Your task to perform on an android device: turn on data saver in the chrome app Image 0: 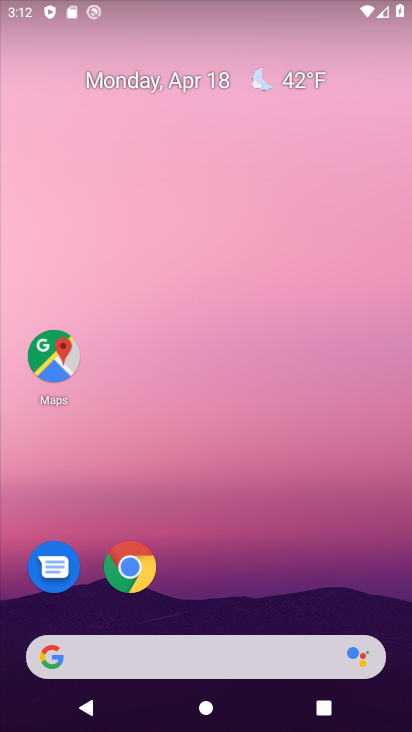
Step 0: drag from (179, 470) to (407, 384)
Your task to perform on an android device: turn on data saver in the chrome app Image 1: 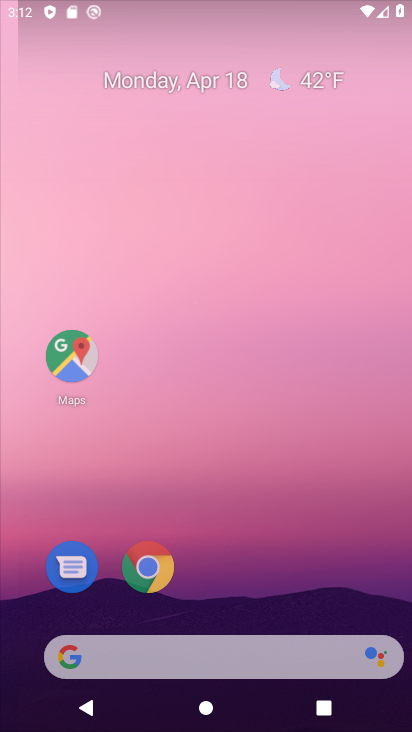
Step 1: click (305, 92)
Your task to perform on an android device: turn on data saver in the chrome app Image 2: 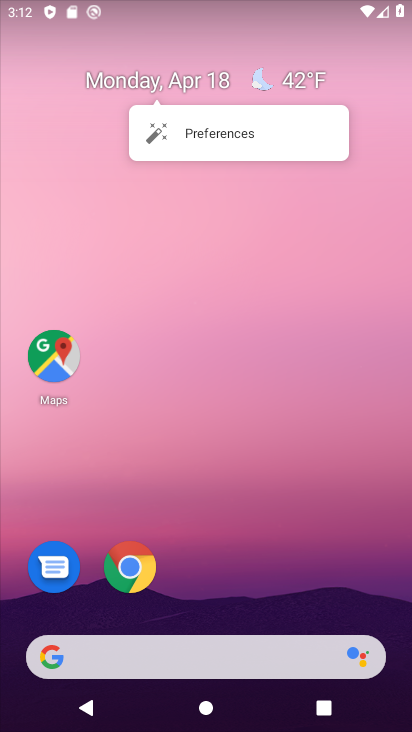
Step 2: click (311, 79)
Your task to perform on an android device: turn on data saver in the chrome app Image 3: 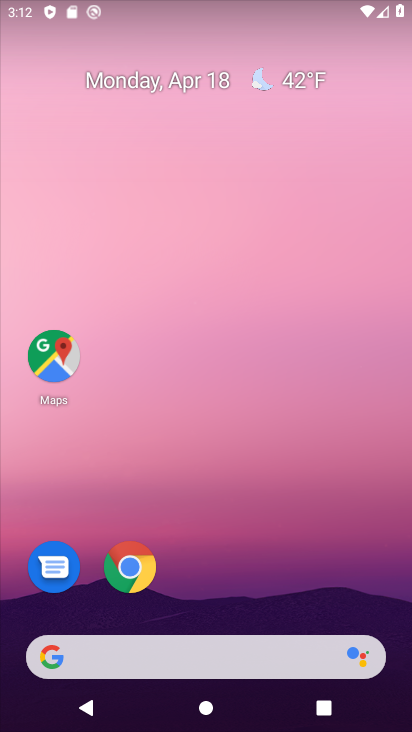
Step 3: click (294, 81)
Your task to perform on an android device: turn on data saver in the chrome app Image 4: 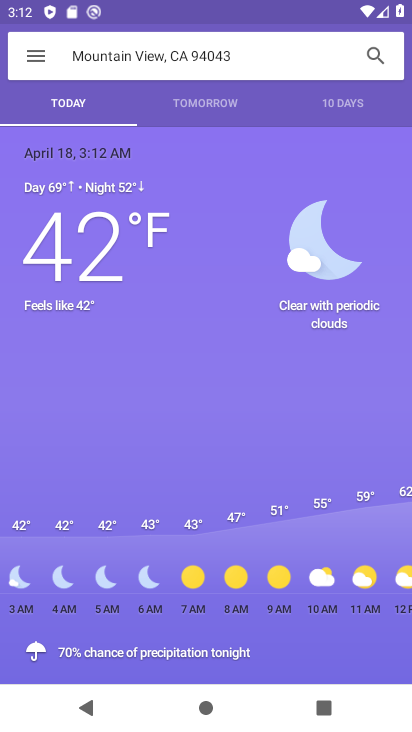
Step 4: press back button
Your task to perform on an android device: turn on data saver in the chrome app Image 5: 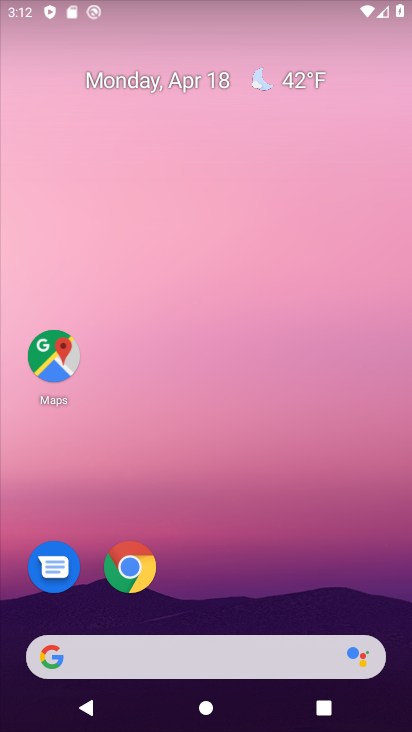
Step 5: drag from (217, 627) to (336, 70)
Your task to perform on an android device: turn on data saver in the chrome app Image 6: 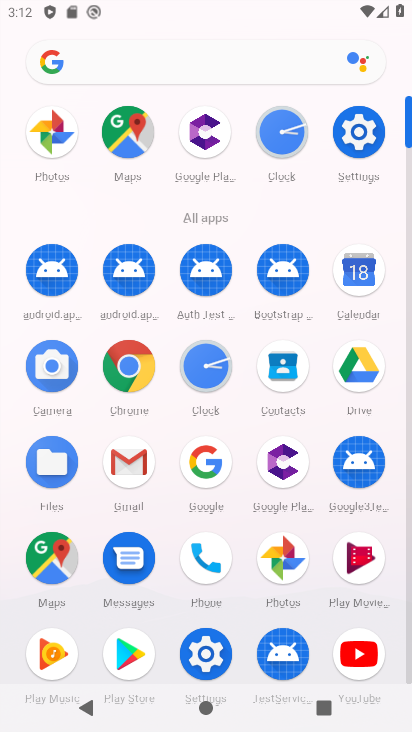
Step 6: drag from (208, 612) to (288, 283)
Your task to perform on an android device: turn on data saver in the chrome app Image 7: 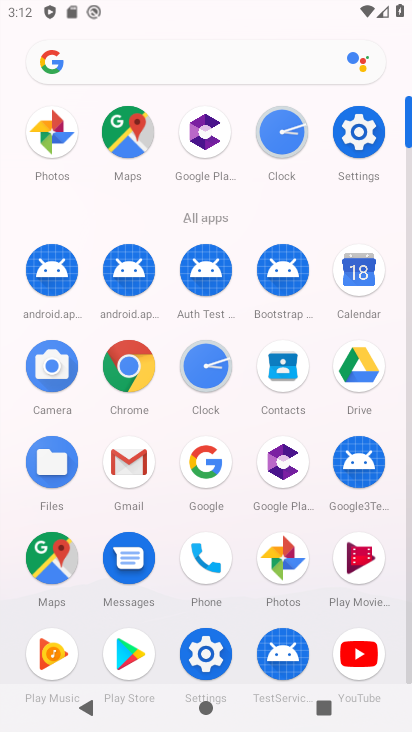
Step 7: click (199, 665)
Your task to perform on an android device: turn on data saver in the chrome app Image 8: 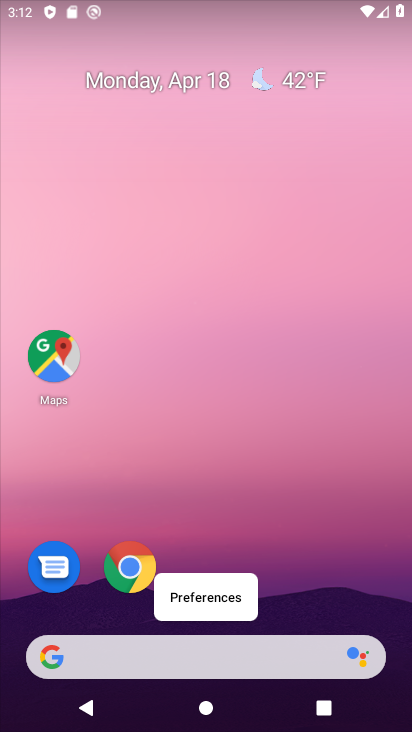
Step 8: click (134, 574)
Your task to perform on an android device: turn on data saver in the chrome app Image 9: 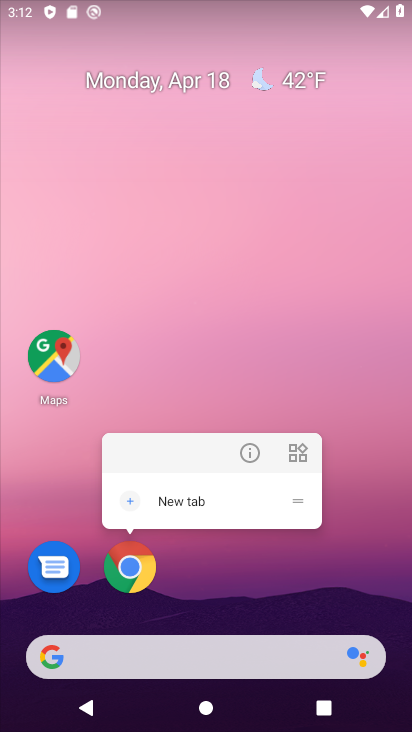
Step 9: click (133, 579)
Your task to perform on an android device: turn on data saver in the chrome app Image 10: 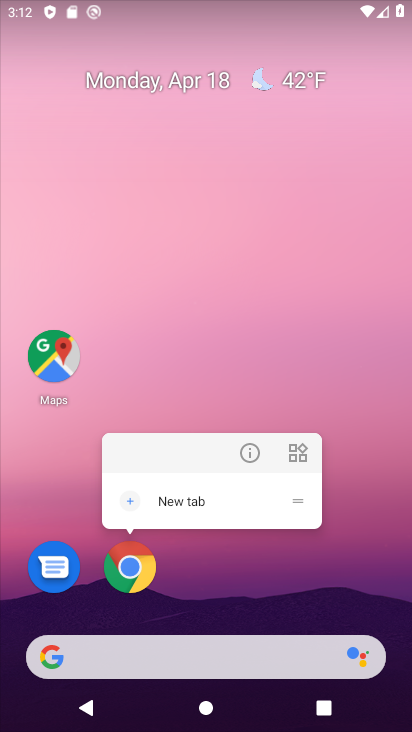
Step 10: click (126, 568)
Your task to perform on an android device: turn on data saver in the chrome app Image 11: 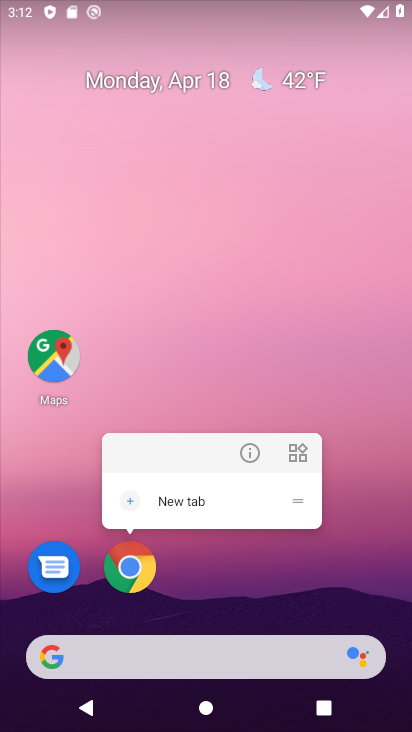
Step 11: click (126, 582)
Your task to perform on an android device: turn on data saver in the chrome app Image 12: 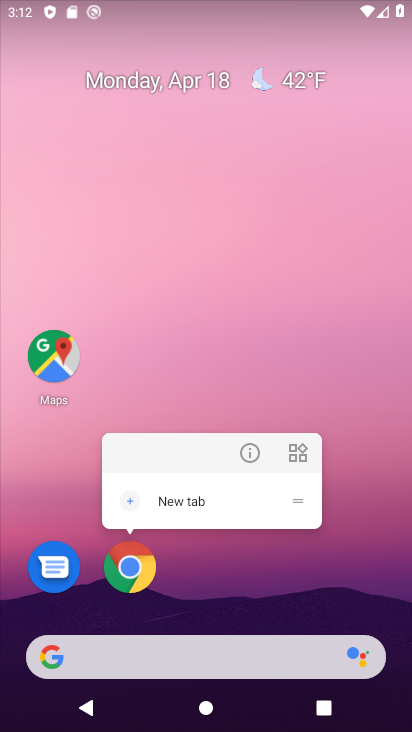
Step 12: click (130, 578)
Your task to perform on an android device: turn on data saver in the chrome app Image 13: 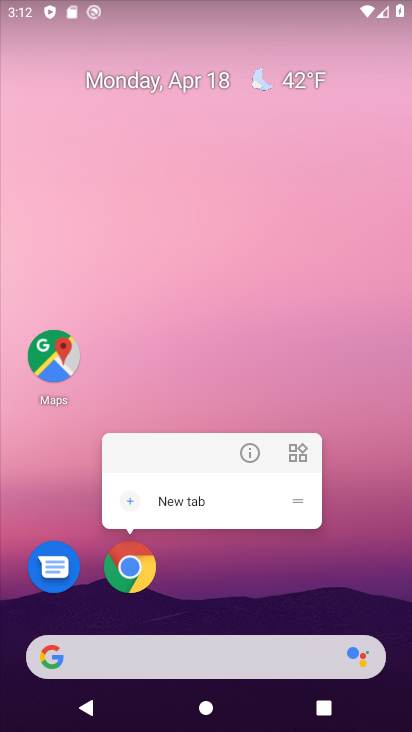
Step 13: click (130, 578)
Your task to perform on an android device: turn on data saver in the chrome app Image 14: 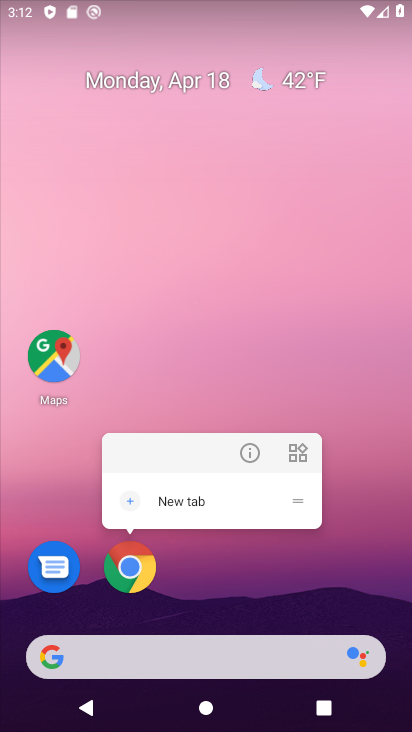
Step 14: click (130, 578)
Your task to perform on an android device: turn on data saver in the chrome app Image 15: 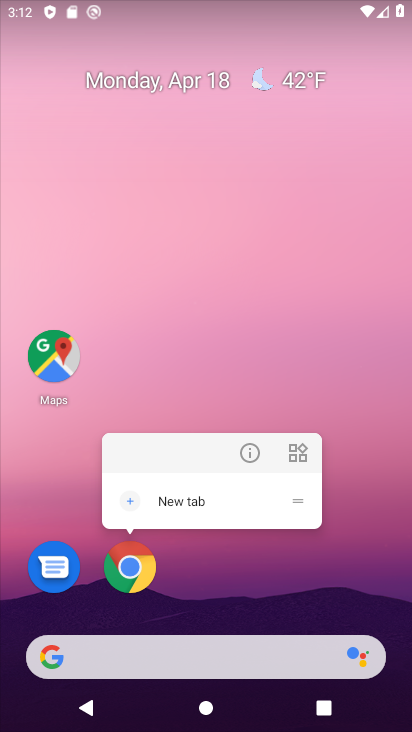
Step 15: click (140, 575)
Your task to perform on an android device: turn on data saver in the chrome app Image 16: 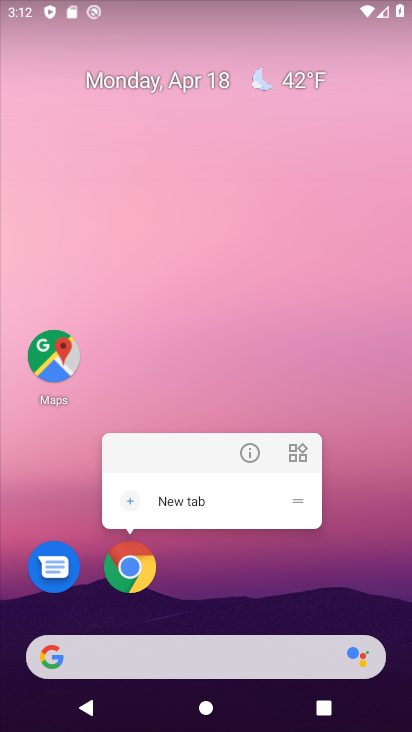
Step 16: click (138, 572)
Your task to perform on an android device: turn on data saver in the chrome app Image 17: 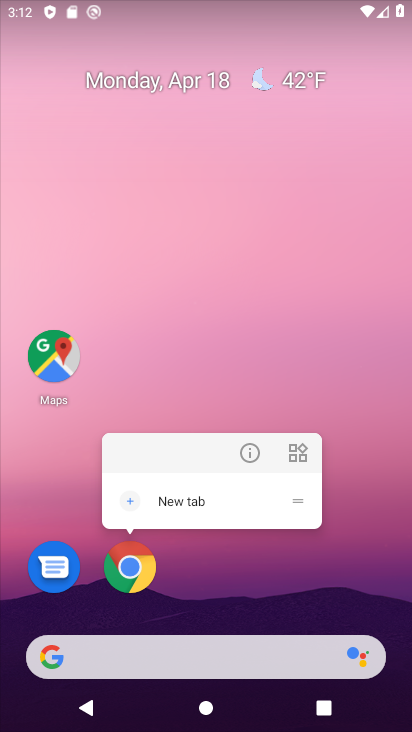
Step 17: click (136, 573)
Your task to perform on an android device: turn on data saver in the chrome app Image 18: 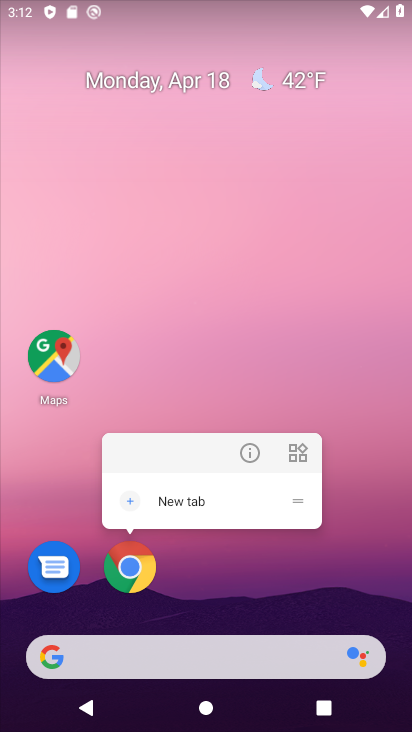
Step 18: click (125, 569)
Your task to perform on an android device: turn on data saver in the chrome app Image 19: 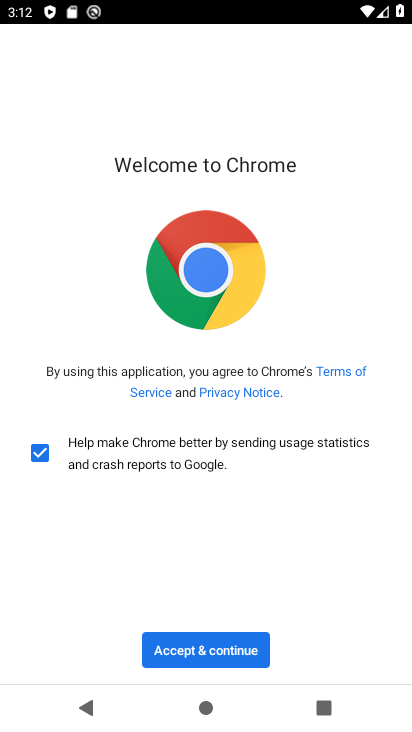
Step 19: click (228, 648)
Your task to perform on an android device: turn on data saver in the chrome app Image 20: 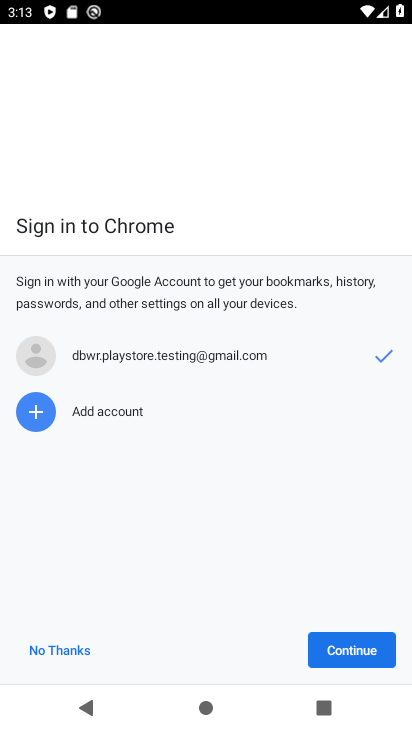
Step 20: click (356, 652)
Your task to perform on an android device: turn on data saver in the chrome app Image 21: 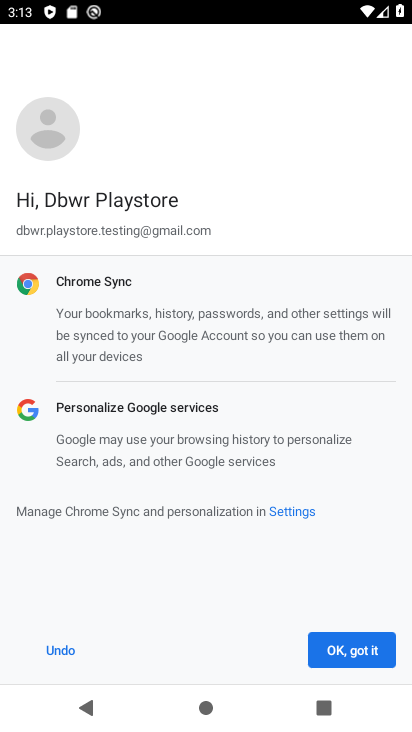
Step 21: click (340, 647)
Your task to perform on an android device: turn on data saver in the chrome app Image 22: 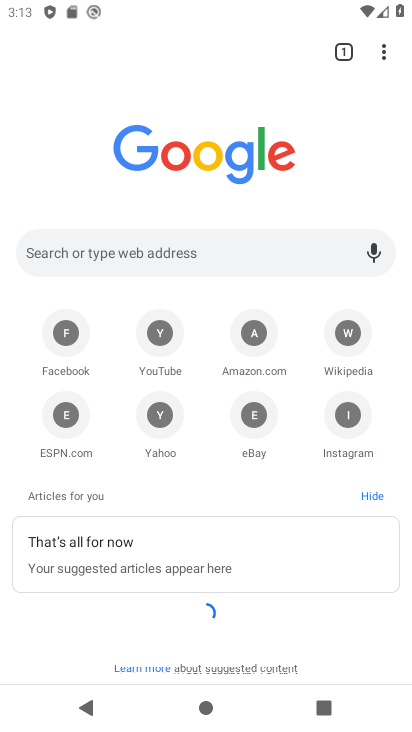
Step 22: click (395, 68)
Your task to perform on an android device: turn on data saver in the chrome app Image 23: 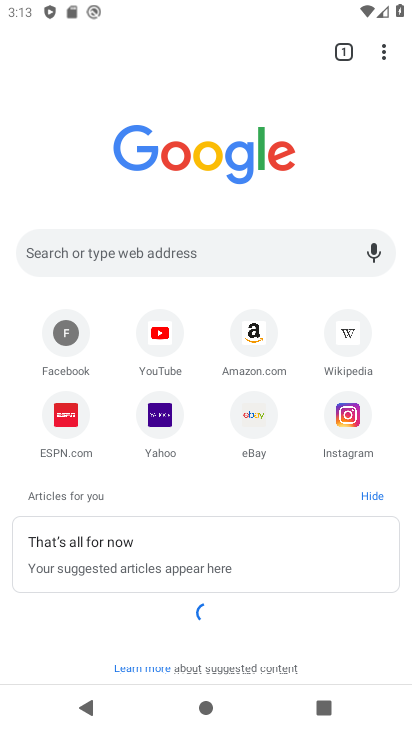
Step 23: click (390, 56)
Your task to perform on an android device: turn on data saver in the chrome app Image 24: 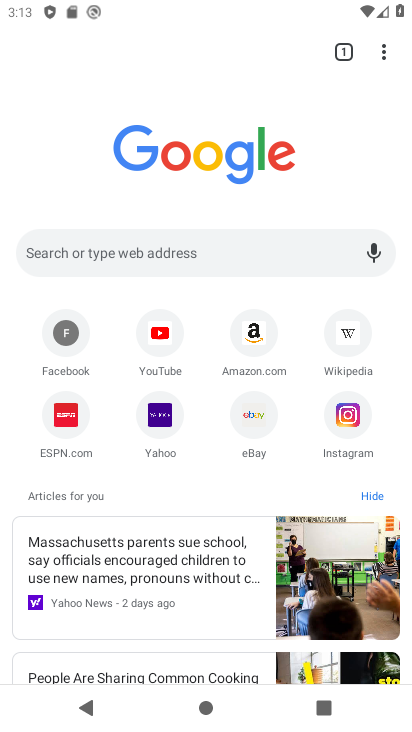
Step 24: drag from (387, 52) to (225, 441)
Your task to perform on an android device: turn on data saver in the chrome app Image 25: 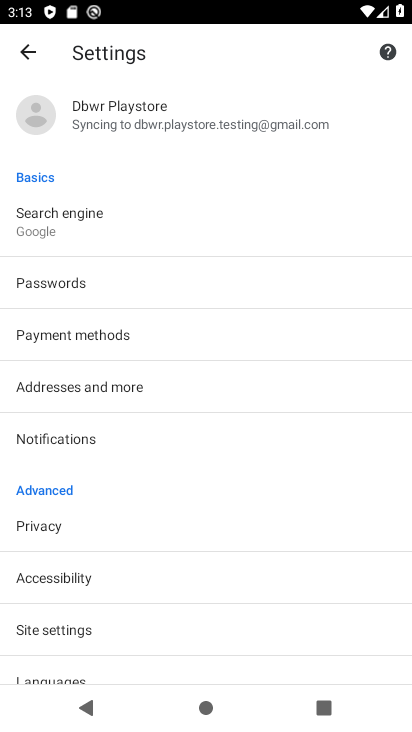
Step 25: drag from (160, 660) to (278, 238)
Your task to perform on an android device: turn on data saver in the chrome app Image 26: 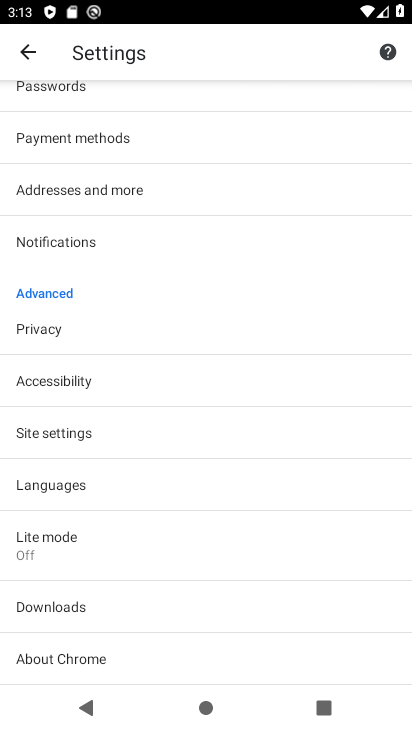
Step 26: drag from (91, 636) to (229, 234)
Your task to perform on an android device: turn on data saver in the chrome app Image 27: 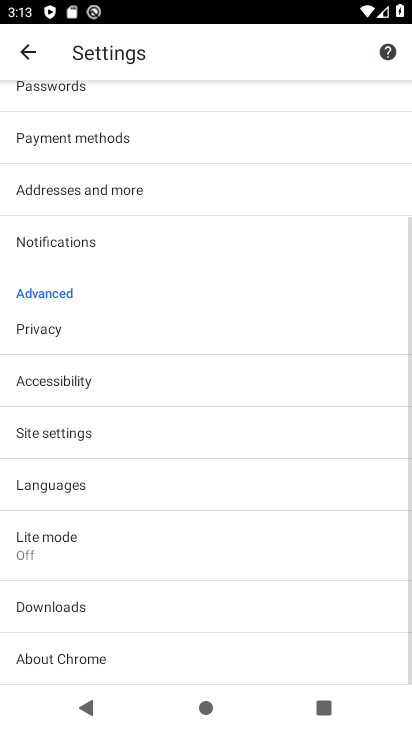
Step 27: drag from (146, 649) to (234, 327)
Your task to perform on an android device: turn on data saver in the chrome app Image 28: 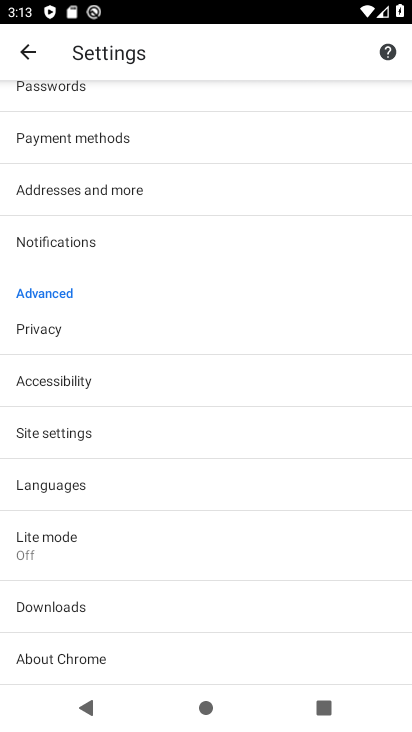
Step 28: click (116, 545)
Your task to perform on an android device: turn on data saver in the chrome app Image 29: 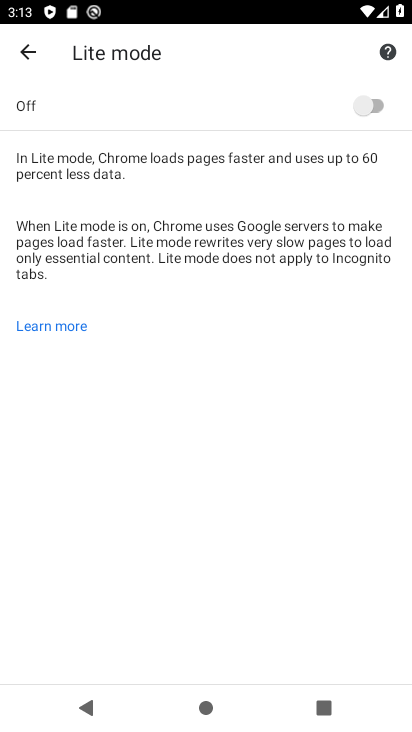
Step 29: click (384, 98)
Your task to perform on an android device: turn on data saver in the chrome app Image 30: 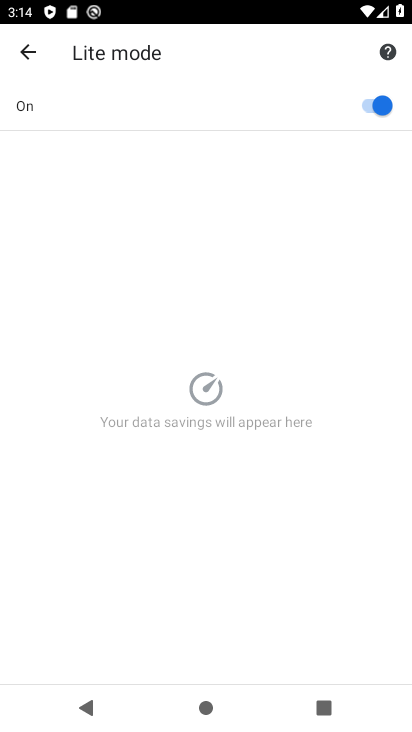
Step 30: task complete